Your task to perform on an android device: open app "DuckDuckGo Privacy Browser" (install if not already installed) Image 0: 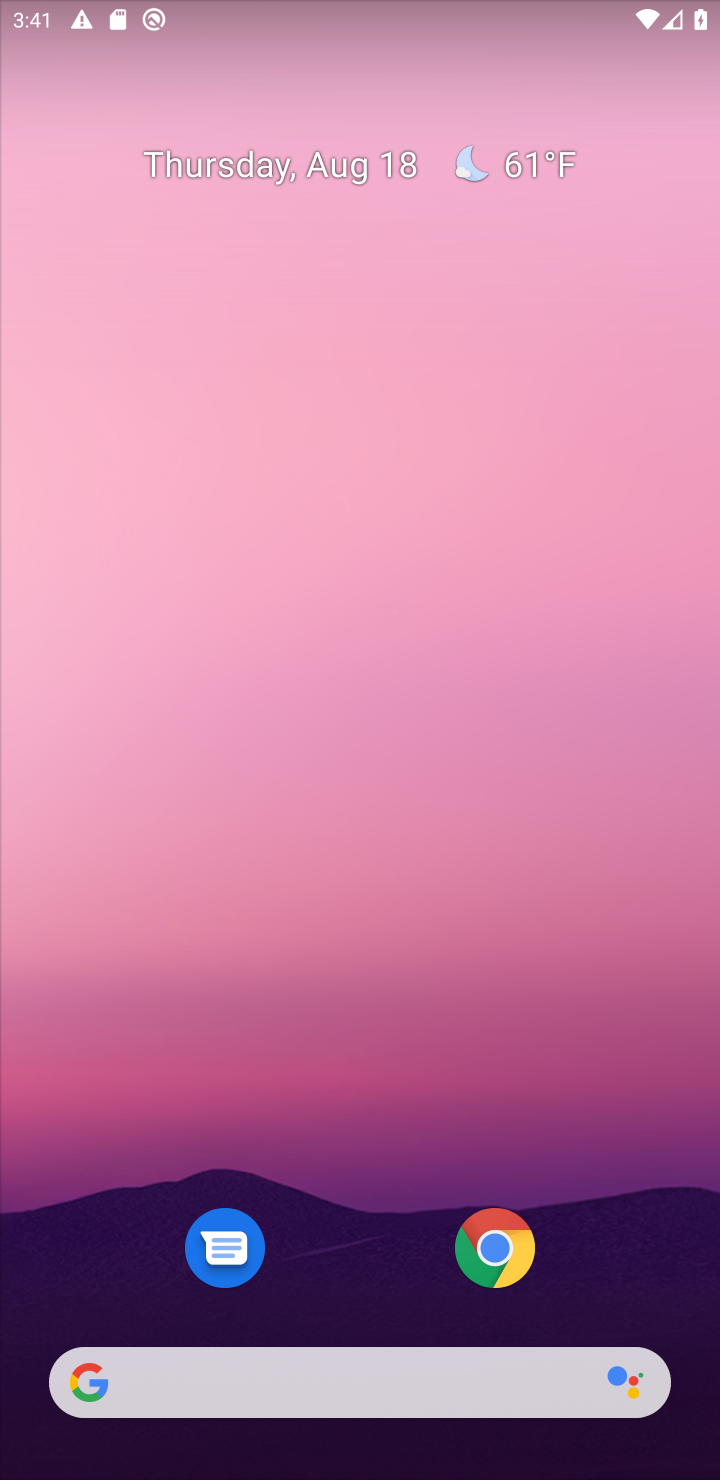
Step 0: drag from (358, 1121) to (477, 104)
Your task to perform on an android device: open app "DuckDuckGo Privacy Browser" (install if not already installed) Image 1: 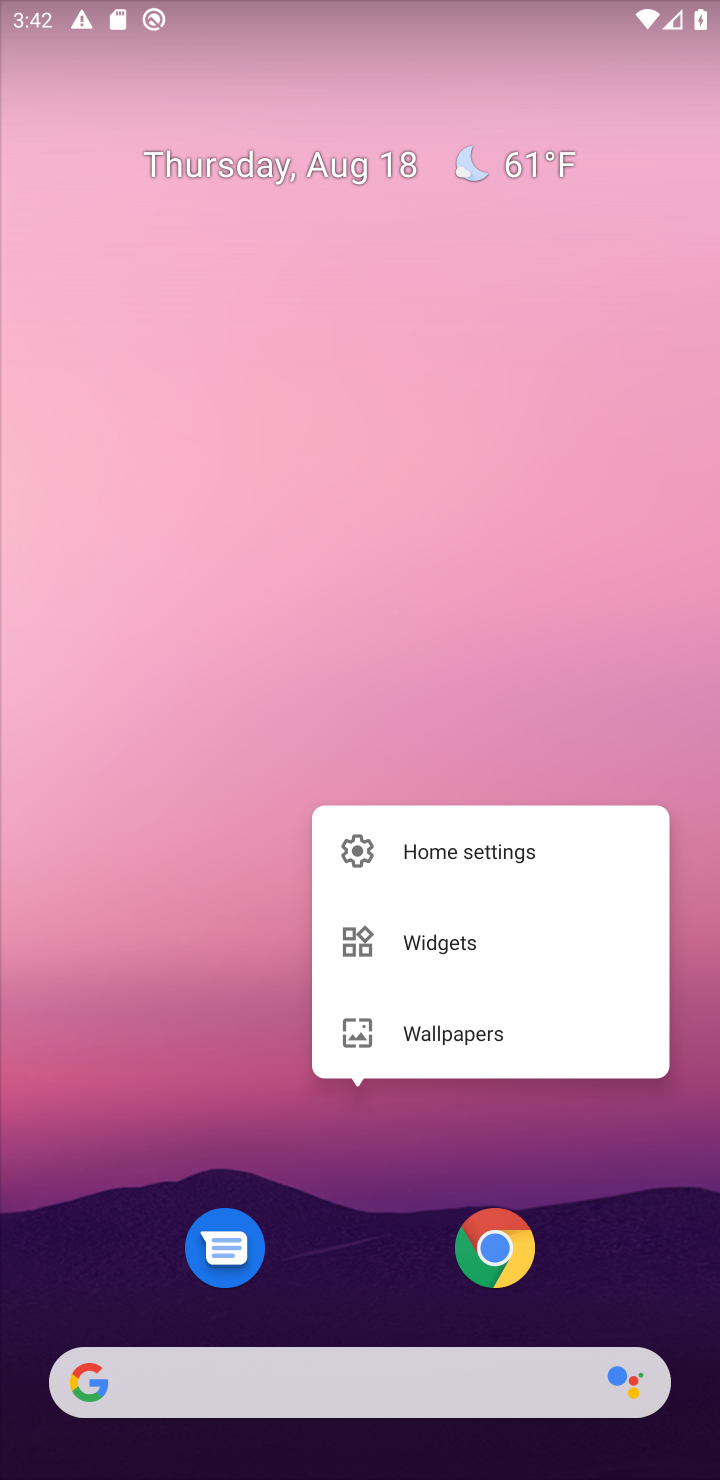
Step 1: drag from (345, 1268) to (347, 74)
Your task to perform on an android device: open app "DuckDuckGo Privacy Browser" (install if not already installed) Image 2: 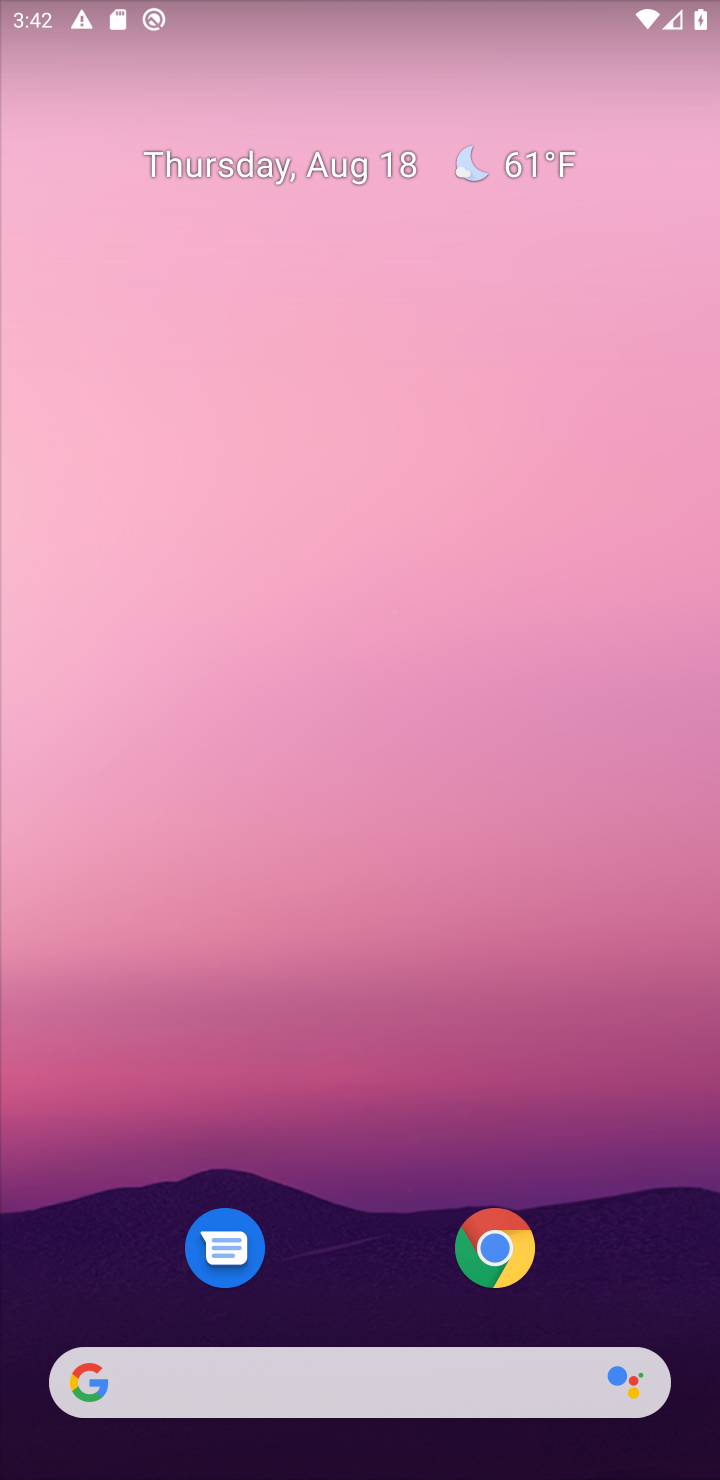
Step 2: drag from (338, 721) to (340, 241)
Your task to perform on an android device: open app "DuckDuckGo Privacy Browser" (install if not already installed) Image 3: 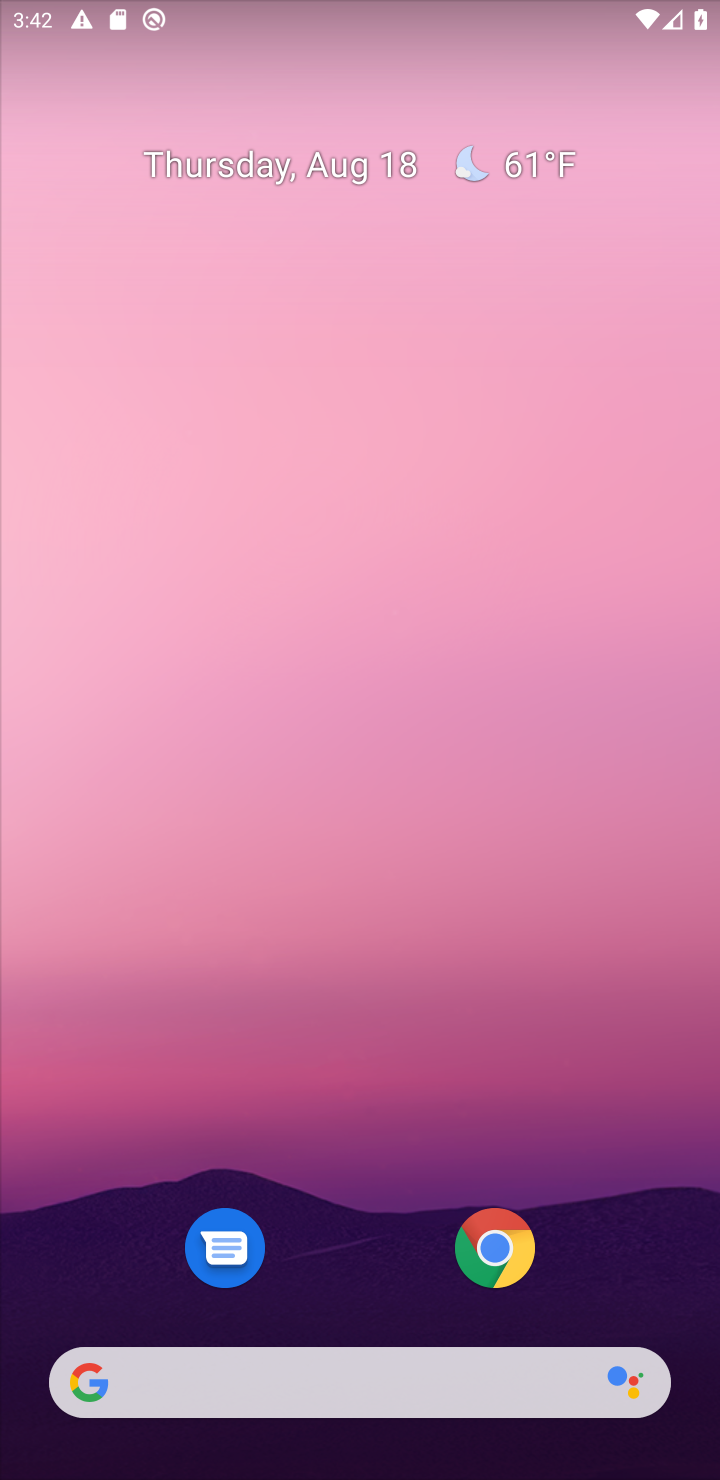
Step 3: drag from (358, 739) to (377, 0)
Your task to perform on an android device: open app "DuckDuckGo Privacy Browser" (install if not already installed) Image 4: 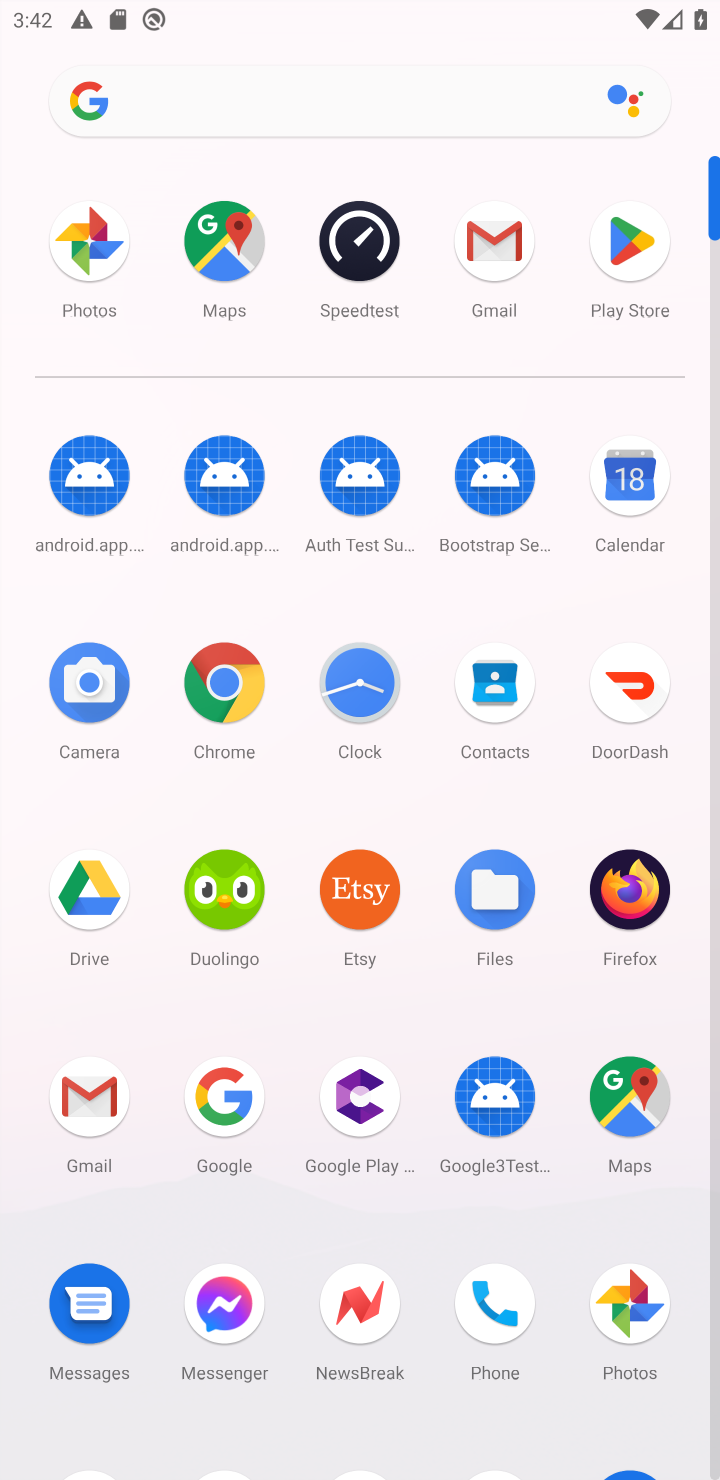
Step 4: click (617, 229)
Your task to perform on an android device: open app "DuckDuckGo Privacy Browser" (install if not already installed) Image 5: 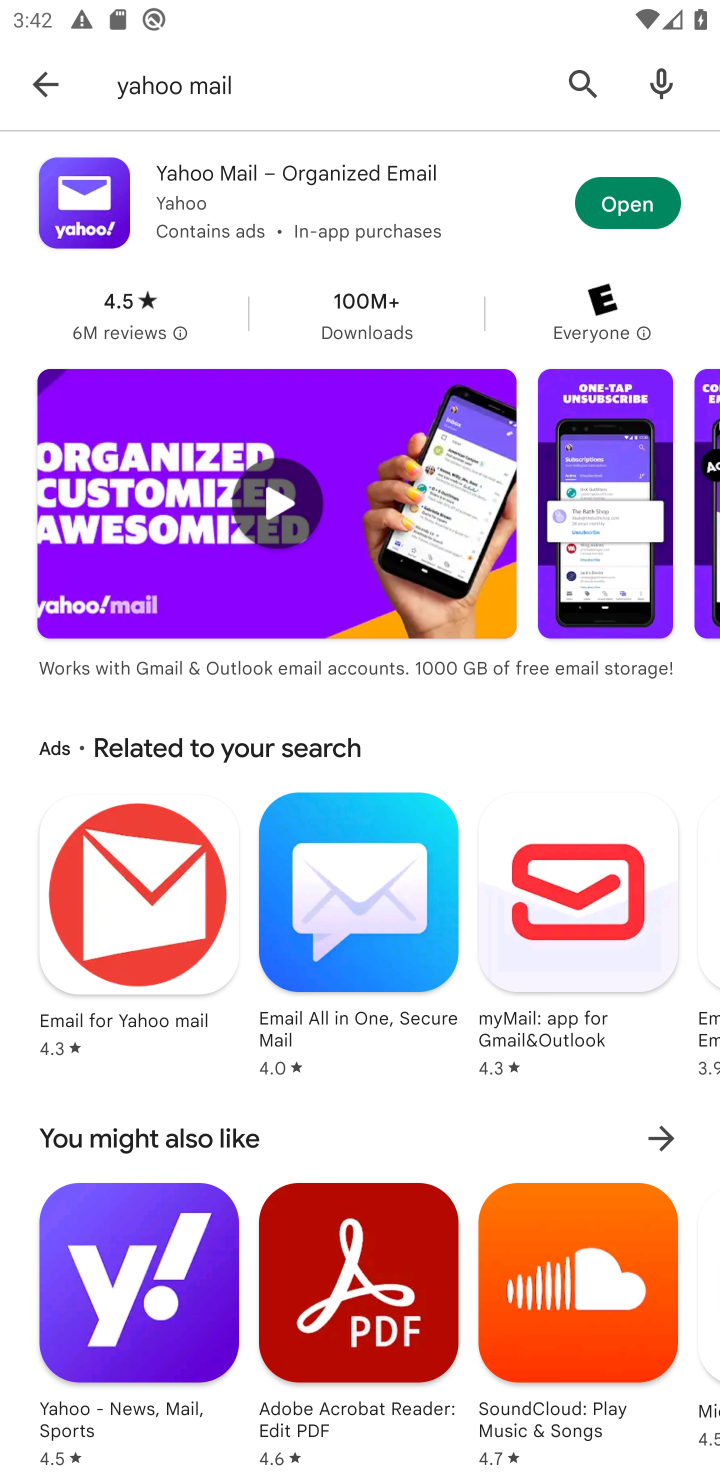
Step 5: click (580, 70)
Your task to perform on an android device: open app "DuckDuckGo Privacy Browser" (install if not already installed) Image 6: 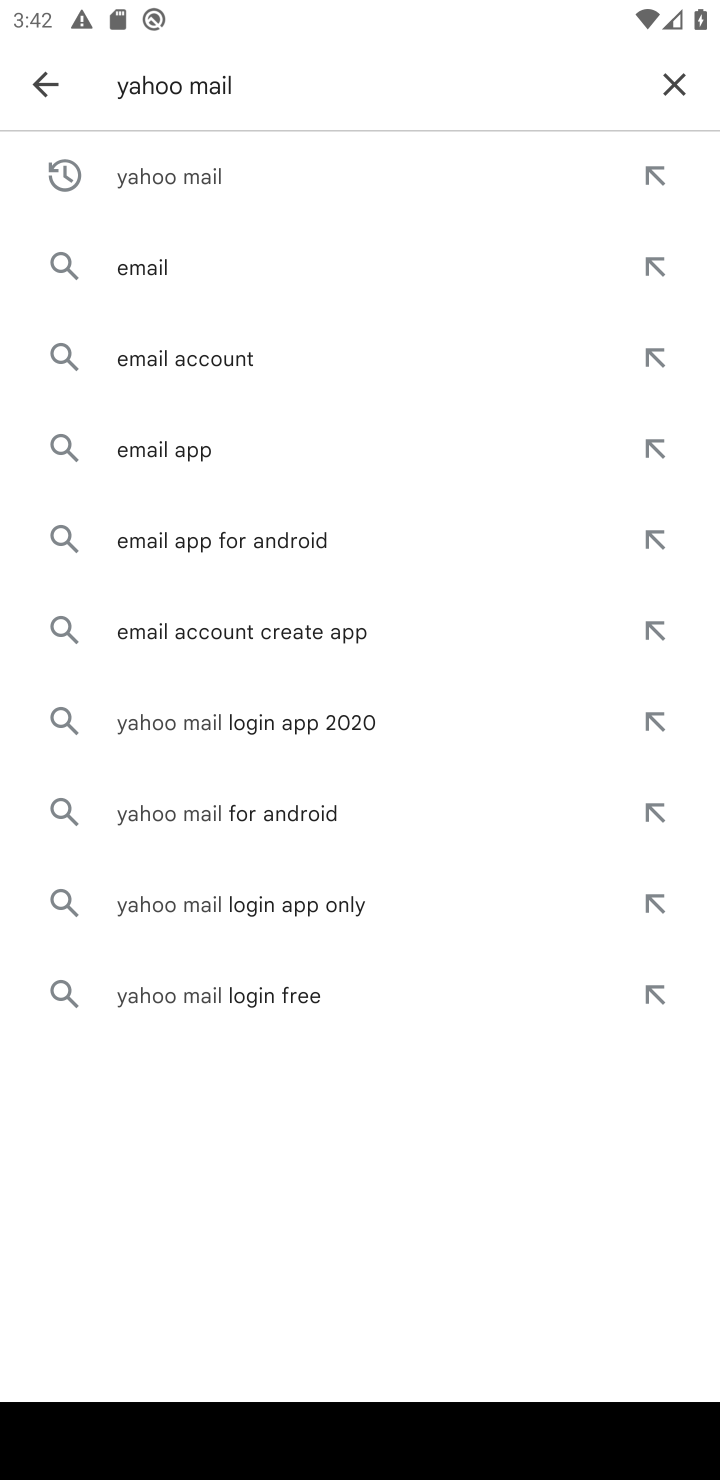
Step 6: click (667, 88)
Your task to perform on an android device: open app "DuckDuckGo Privacy Browser" (install if not already installed) Image 7: 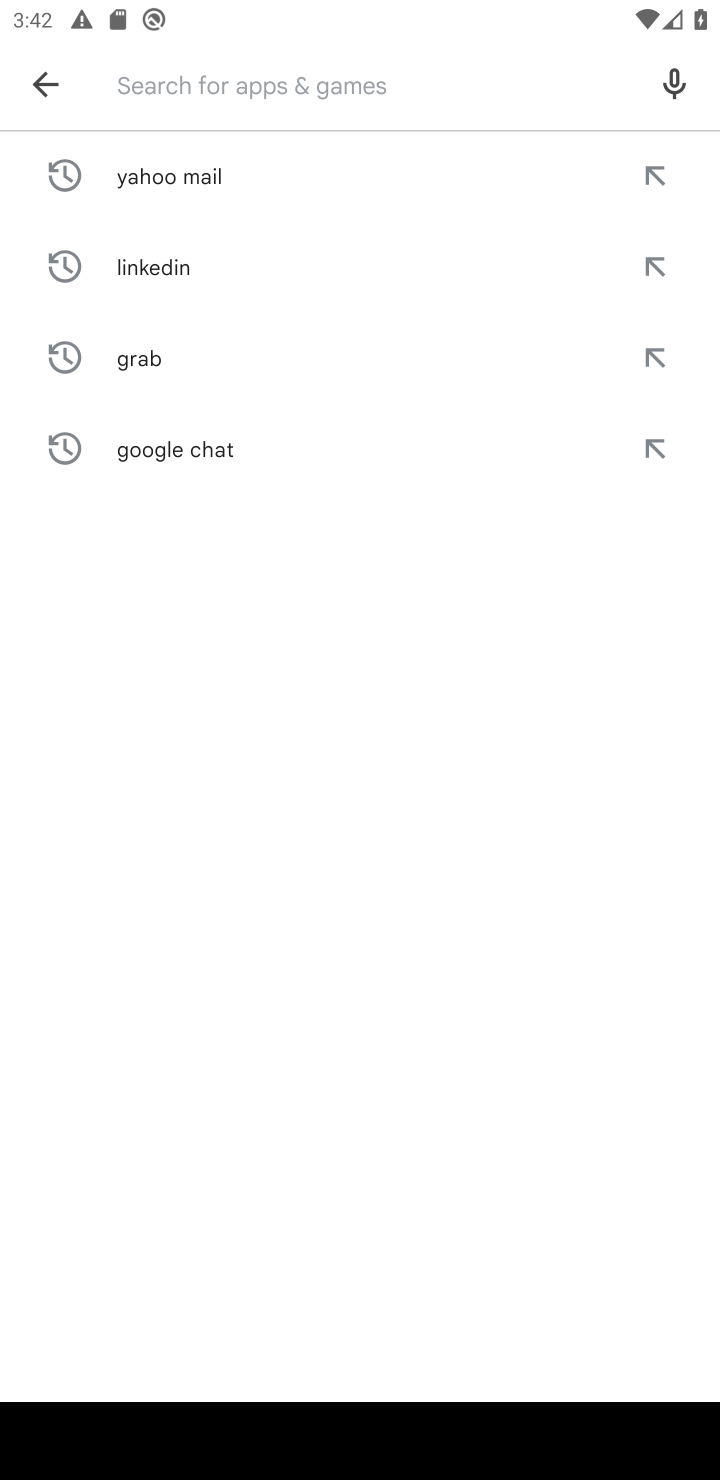
Step 7: type "DuckDuckGo Privacy Browser"
Your task to perform on an android device: open app "DuckDuckGo Privacy Browser" (install if not already installed) Image 8: 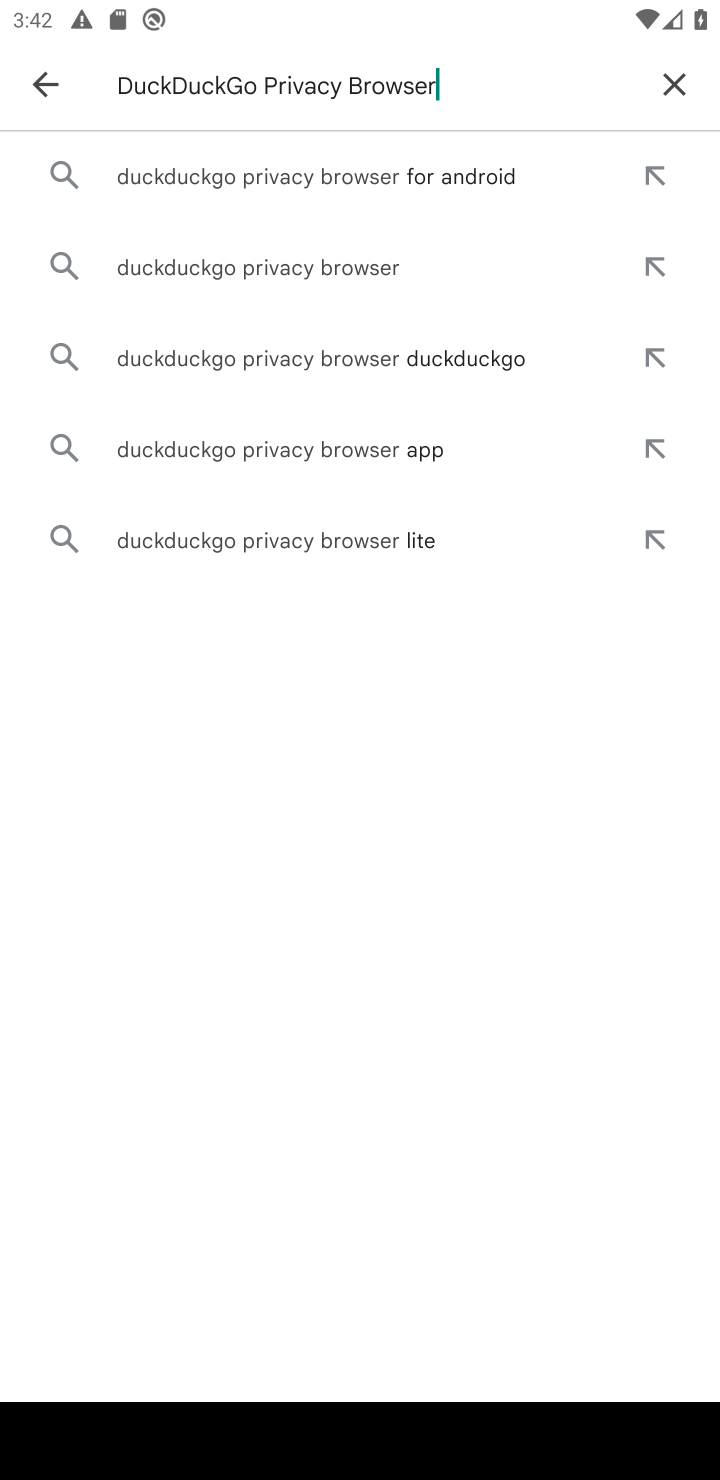
Step 8: click (260, 271)
Your task to perform on an android device: open app "DuckDuckGo Privacy Browser" (install if not already installed) Image 9: 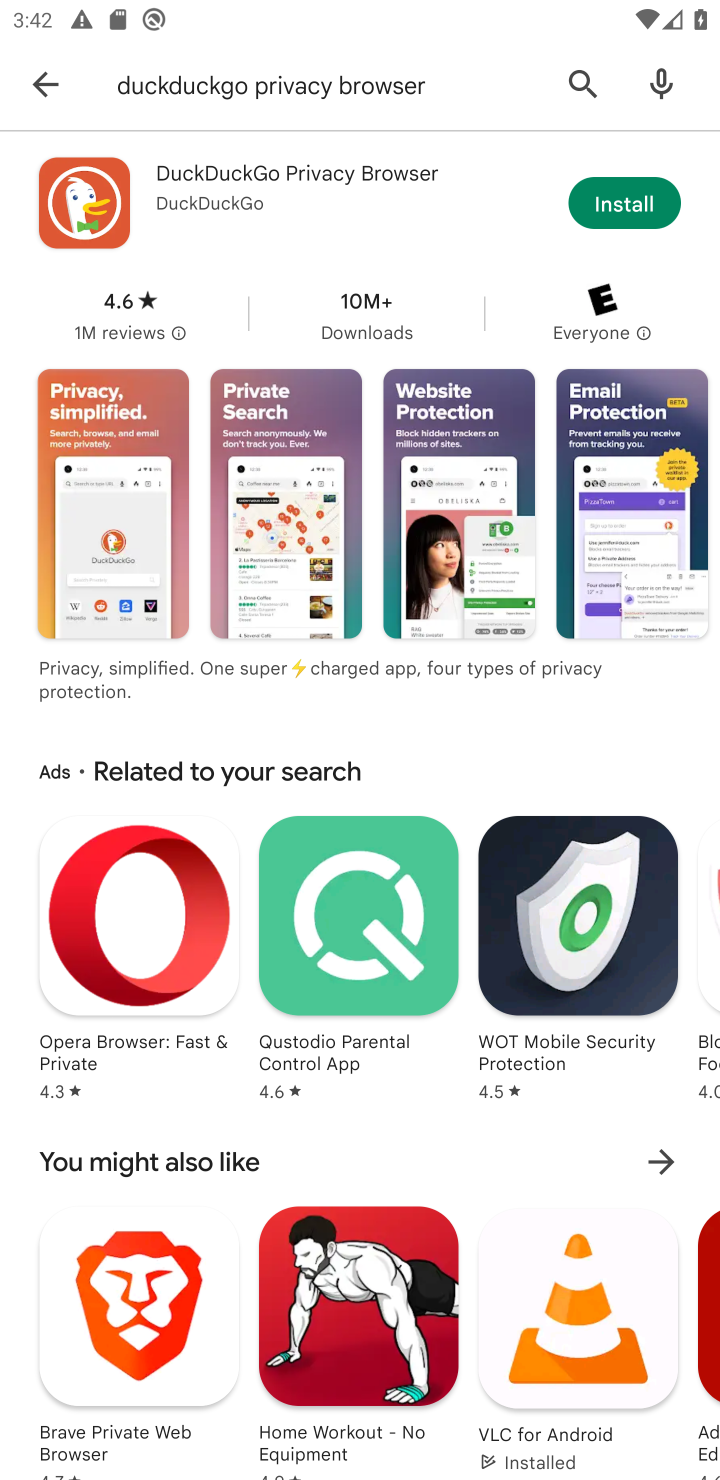
Step 9: click (631, 203)
Your task to perform on an android device: open app "DuckDuckGo Privacy Browser" (install if not already installed) Image 10: 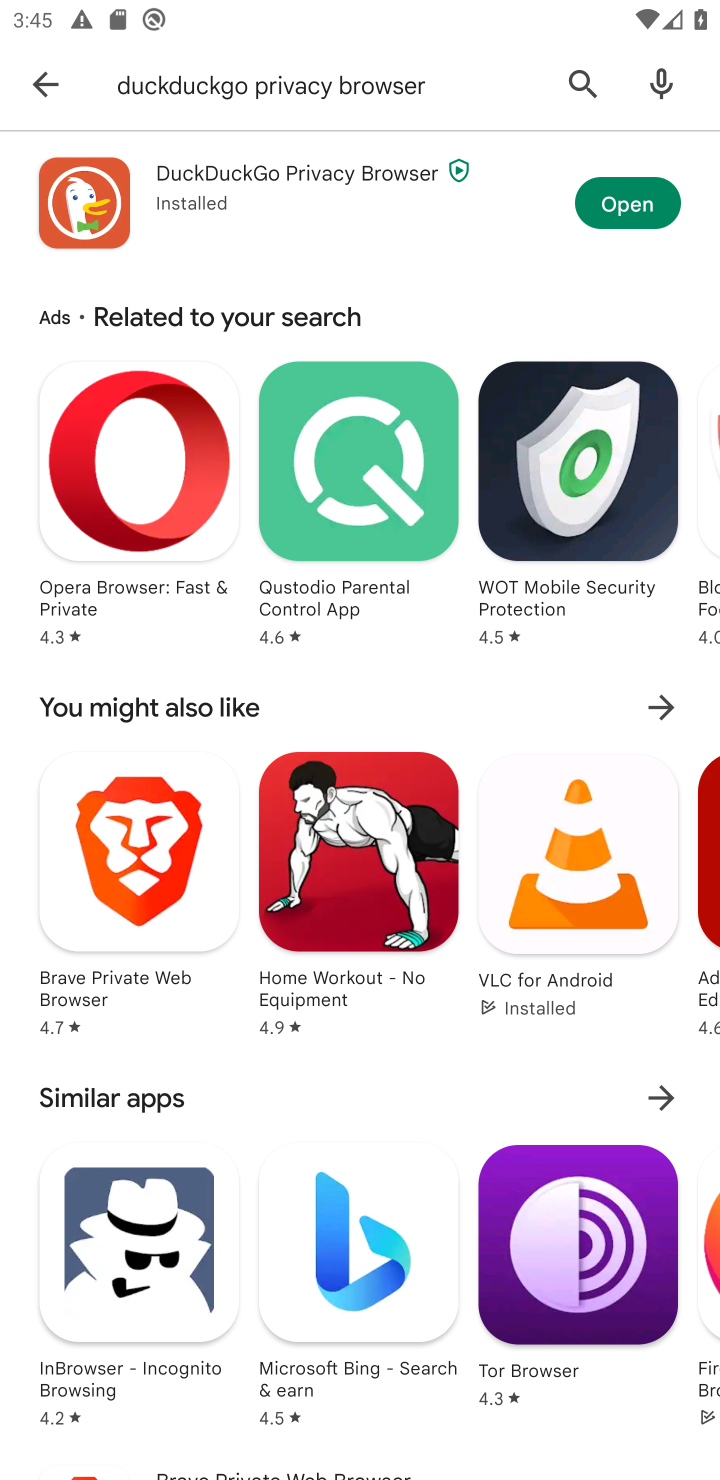
Step 10: click (629, 199)
Your task to perform on an android device: open app "DuckDuckGo Privacy Browser" (install if not already installed) Image 11: 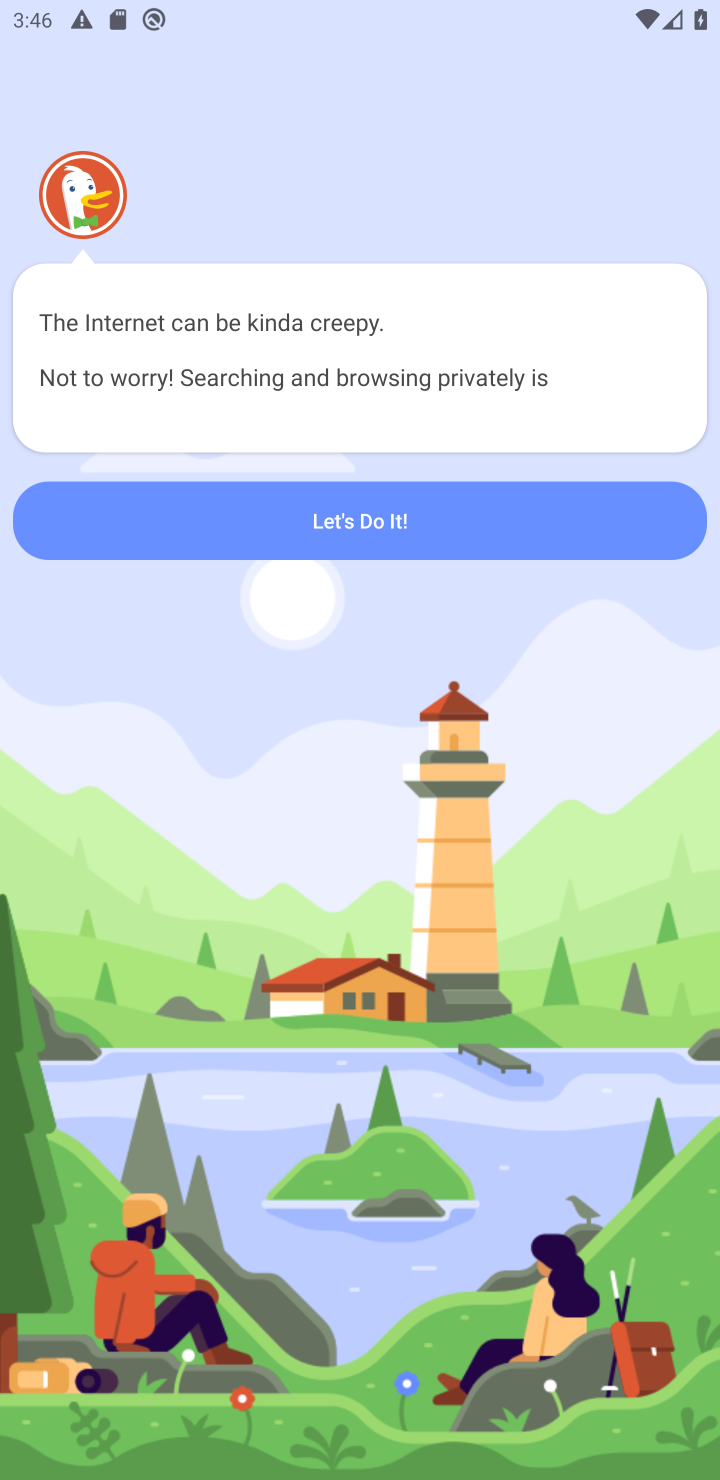
Step 11: task complete